Your task to perform on an android device: Search for pizza restaurants on Maps Image 0: 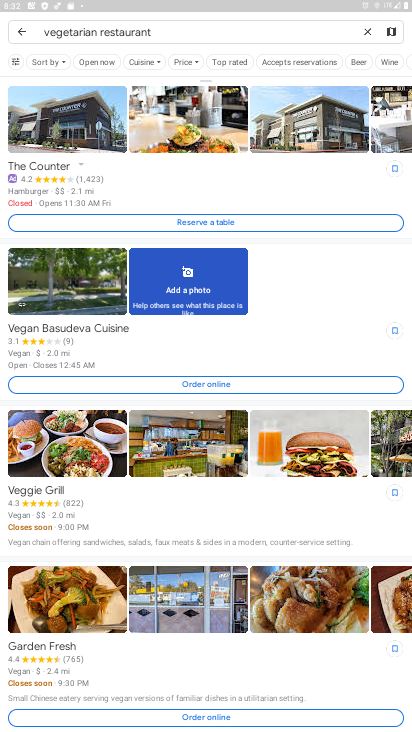
Step 0: press home button
Your task to perform on an android device: Search for pizza restaurants on Maps Image 1: 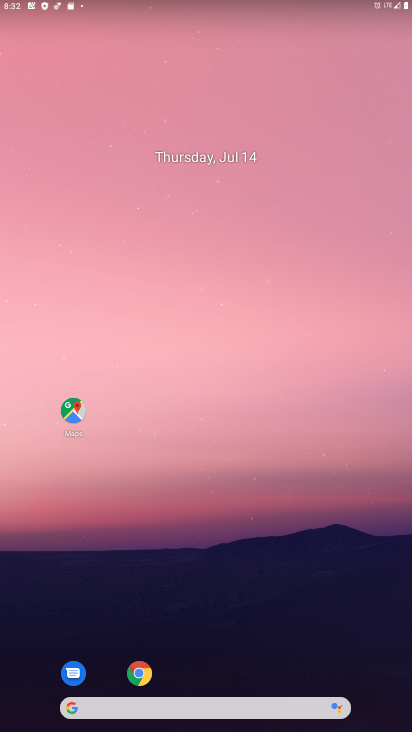
Step 1: click (74, 413)
Your task to perform on an android device: Search for pizza restaurants on Maps Image 2: 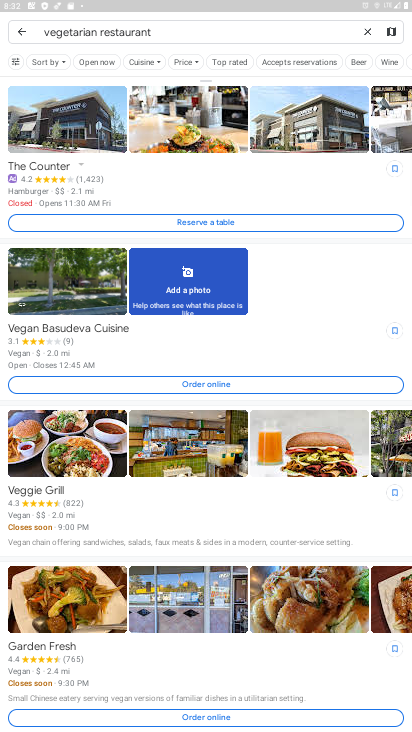
Step 2: click (369, 34)
Your task to perform on an android device: Search for pizza restaurants on Maps Image 3: 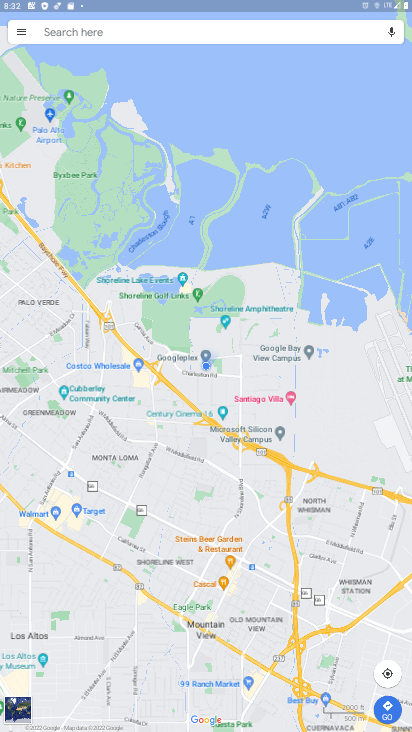
Step 3: click (298, 34)
Your task to perform on an android device: Search for pizza restaurants on Maps Image 4: 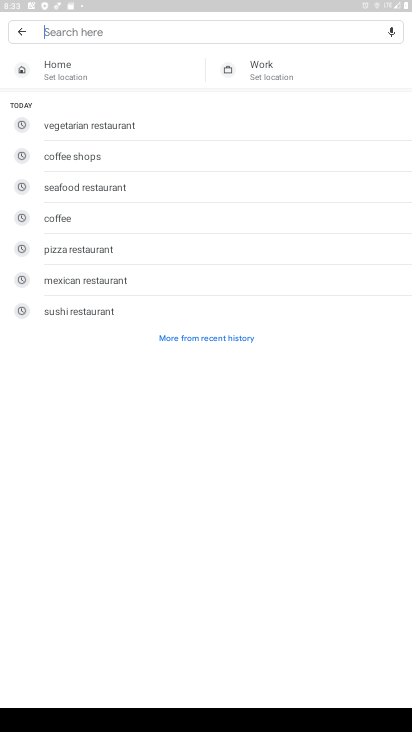
Step 4: type "pizza restaurants"
Your task to perform on an android device: Search for pizza restaurants on Maps Image 5: 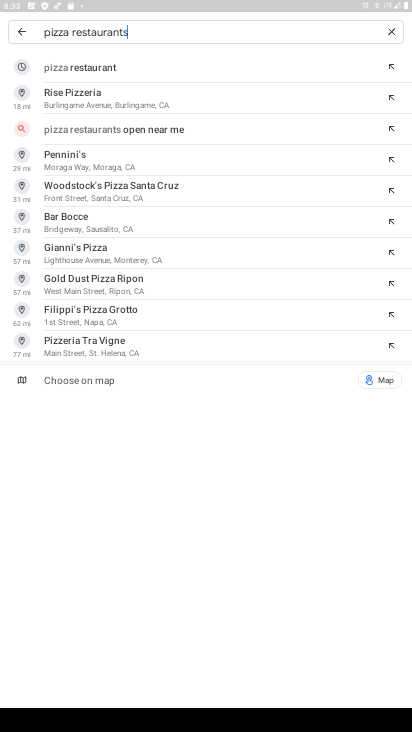
Step 5: click (115, 76)
Your task to perform on an android device: Search for pizza restaurants on Maps Image 6: 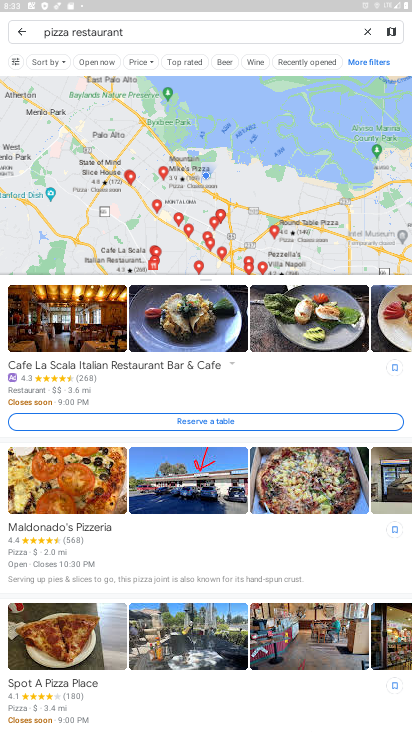
Step 6: task complete